Your task to perform on an android device: read, delete, or share a saved page in the chrome app Image 0: 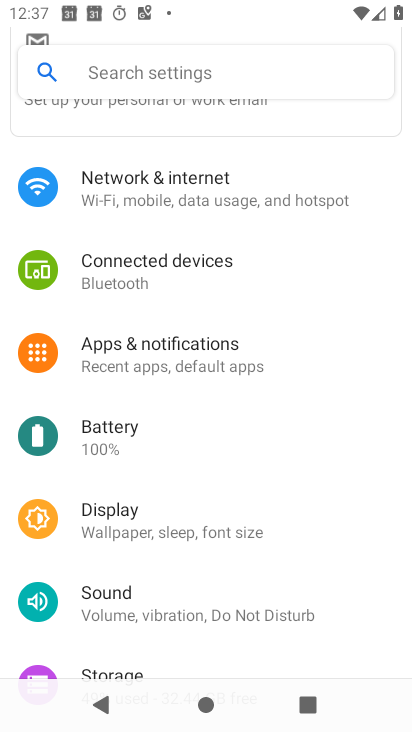
Step 0: press home button
Your task to perform on an android device: read, delete, or share a saved page in the chrome app Image 1: 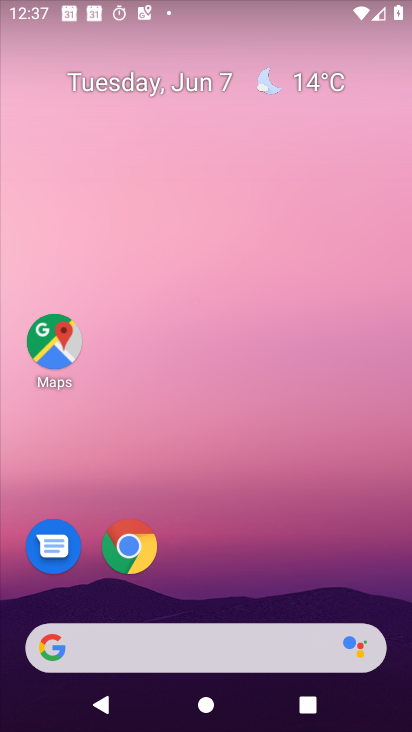
Step 1: click (103, 529)
Your task to perform on an android device: read, delete, or share a saved page in the chrome app Image 2: 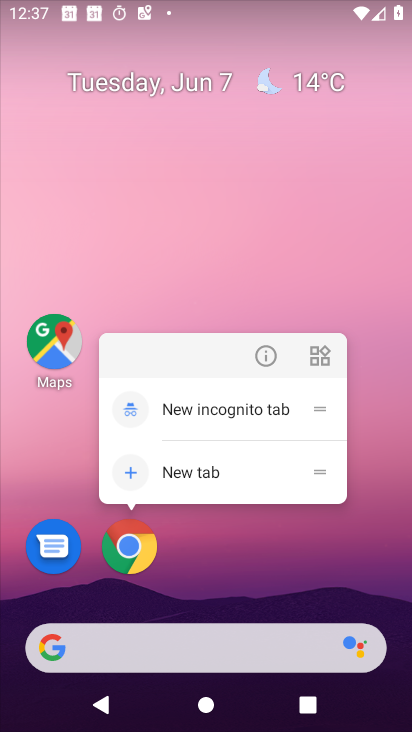
Step 2: click (124, 551)
Your task to perform on an android device: read, delete, or share a saved page in the chrome app Image 3: 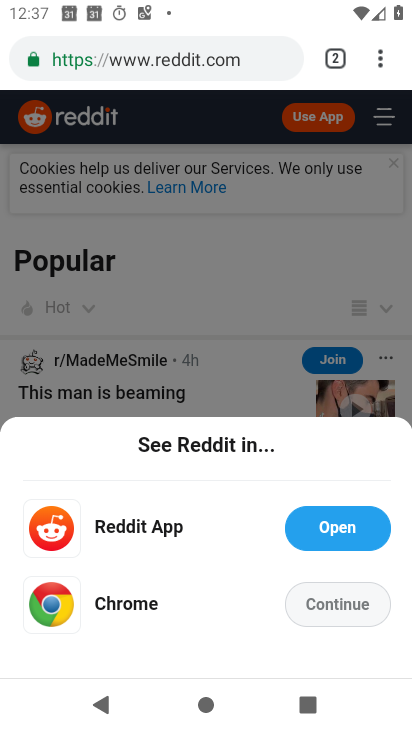
Step 3: click (377, 60)
Your task to perform on an android device: read, delete, or share a saved page in the chrome app Image 4: 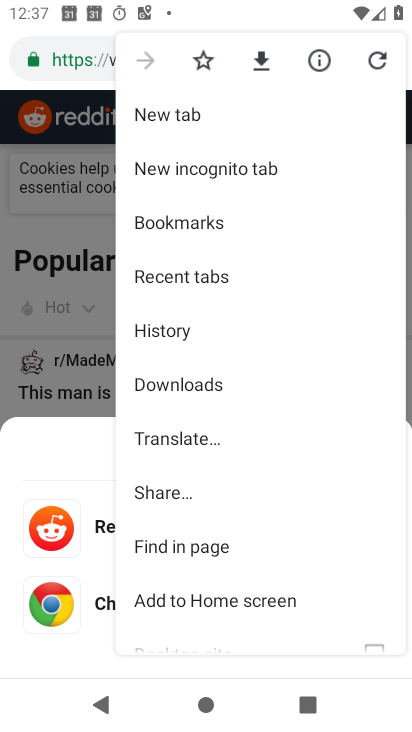
Step 4: click (194, 383)
Your task to perform on an android device: read, delete, or share a saved page in the chrome app Image 5: 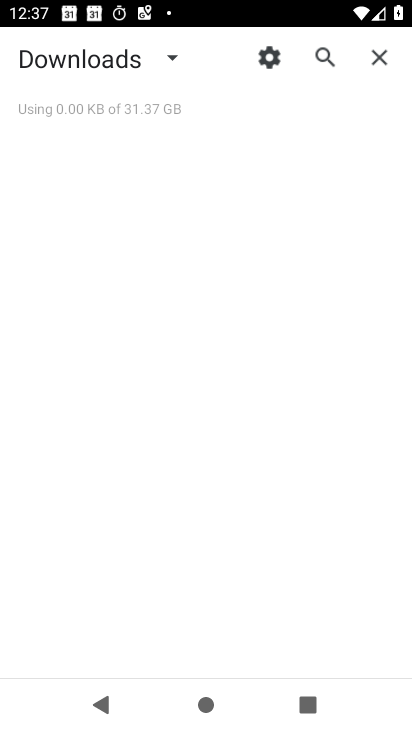
Step 5: task complete